Your task to perform on an android device: turn on improve location accuracy Image 0: 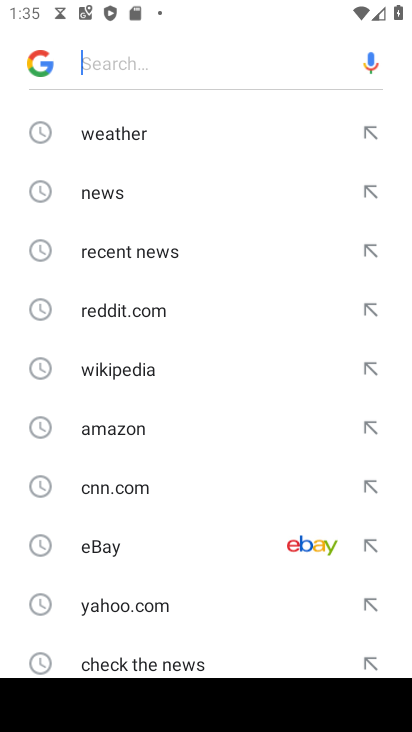
Step 0: press home button
Your task to perform on an android device: turn on improve location accuracy Image 1: 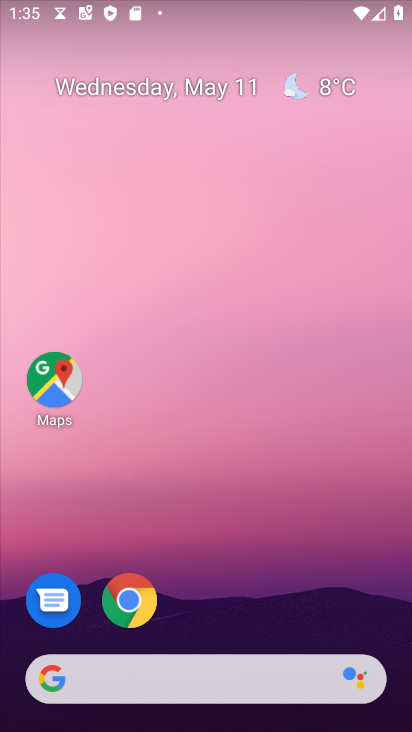
Step 1: drag from (283, 594) to (241, 96)
Your task to perform on an android device: turn on improve location accuracy Image 2: 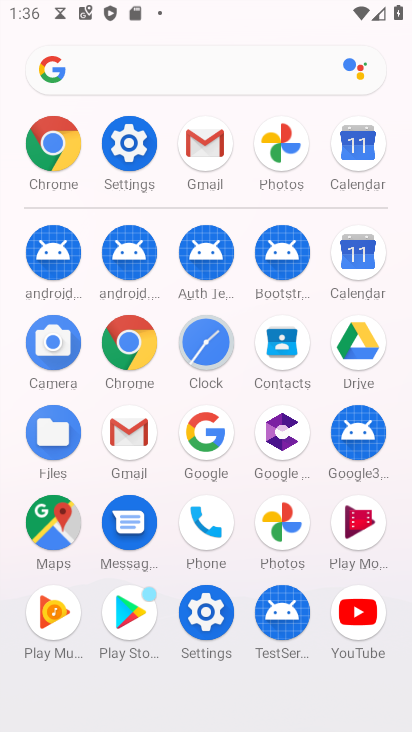
Step 2: click (211, 601)
Your task to perform on an android device: turn on improve location accuracy Image 3: 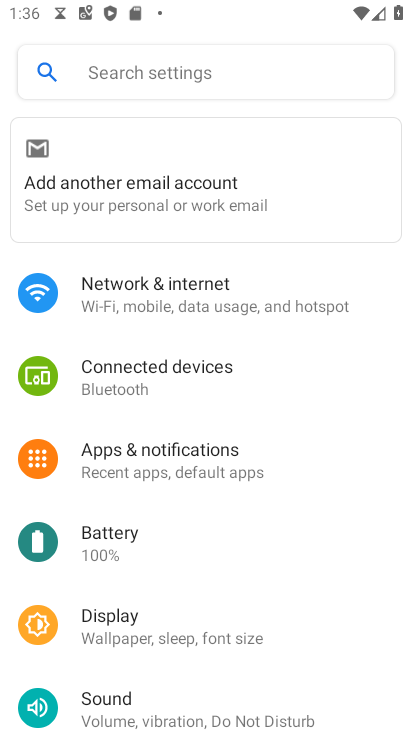
Step 3: drag from (237, 653) to (220, 222)
Your task to perform on an android device: turn on improve location accuracy Image 4: 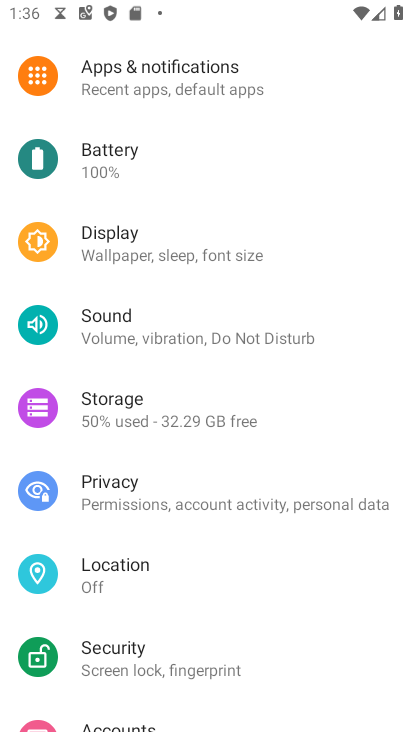
Step 4: click (231, 571)
Your task to perform on an android device: turn on improve location accuracy Image 5: 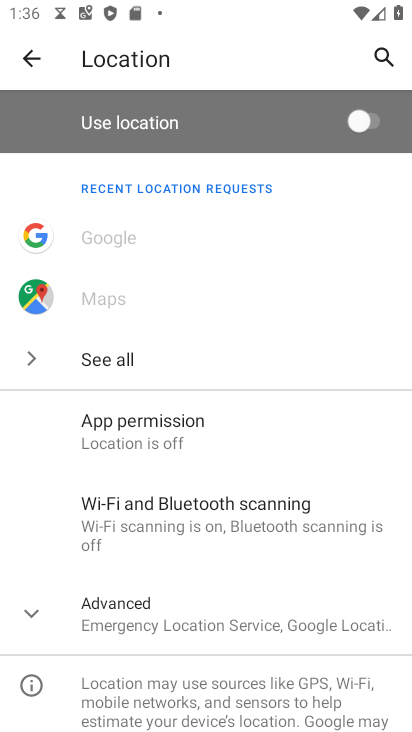
Step 5: drag from (225, 587) to (246, 392)
Your task to perform on an android device: turn on improve location accuracy Image 6: 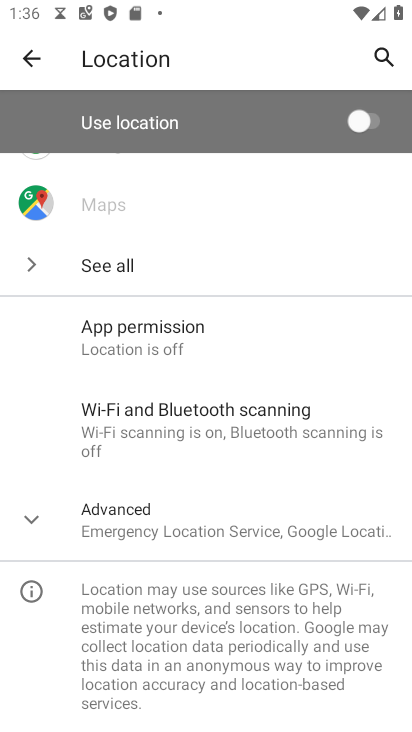
Step 6: click (209, 513)
Your task to perform on an android device: turn on improve location accuracy Image 7: 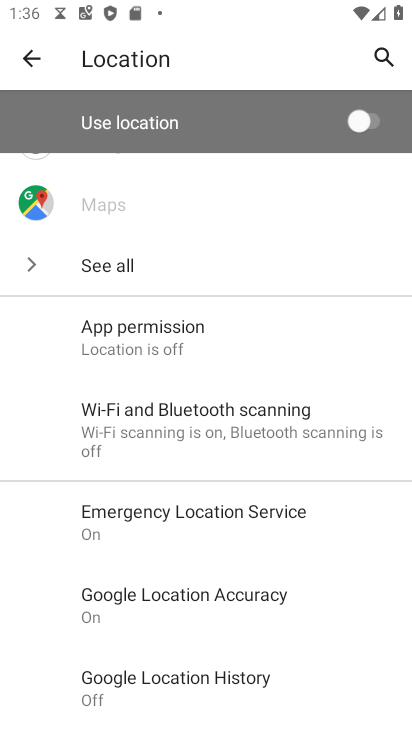
Step 7: click (250, 594)
Your task to perform on an android device: turn on improve location accuracy Image 8: 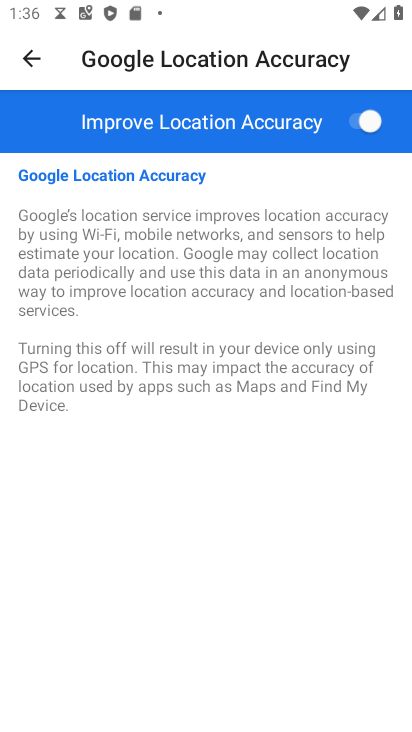
Step 8: task complete